Your task to perform on an android device: What's on my calendar tomorrow? Image 0: 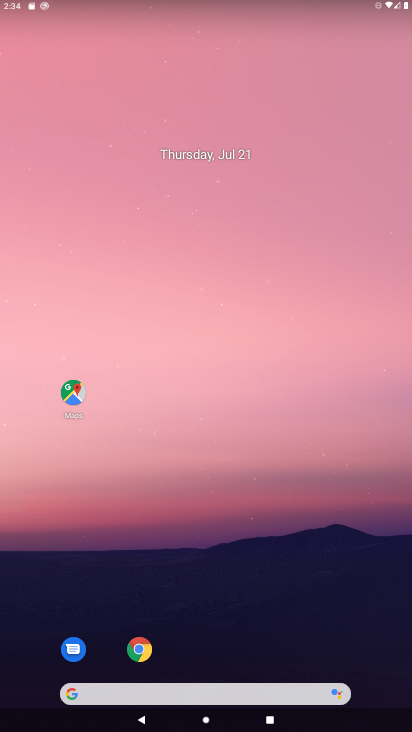
Step 0: drag from (191, 609) to (211, 116)
Your task to perform on an android device: What's on my calendar tomorrow? Image 1: 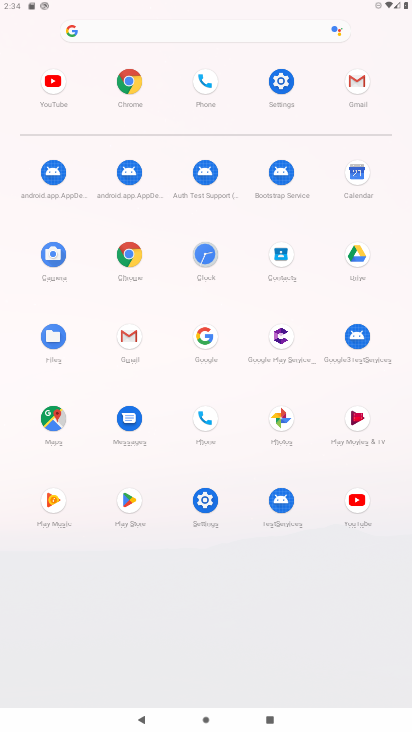
Step 1: click (371, 172)
Your task to perform on an android device: What's on my calendar tomorrow? Image 2: 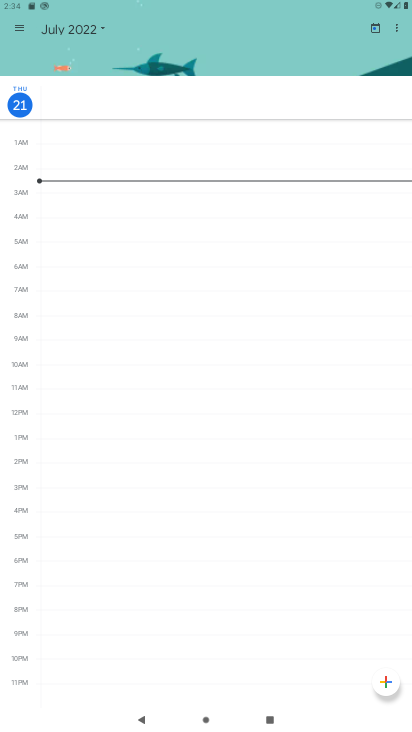
Step 2: click (77, 33)
Your task to perform on an android device: What's on my calendar tomorrow? Image 3: 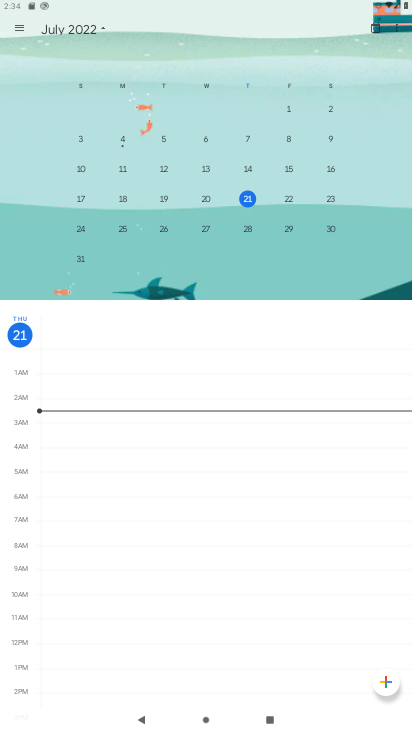
Step 3: click (290, 195)
Your task to perform on an android device: What's on my calendar tomorrow? Image 4: 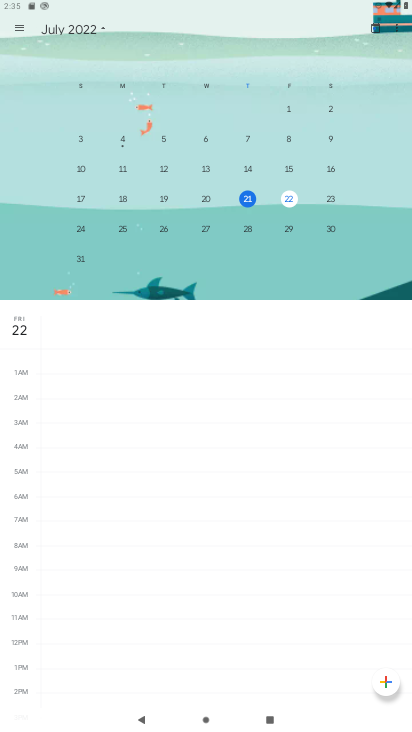
Step 4: task complete